Your task to perform on an android device: Open ESPN.com Image 0: 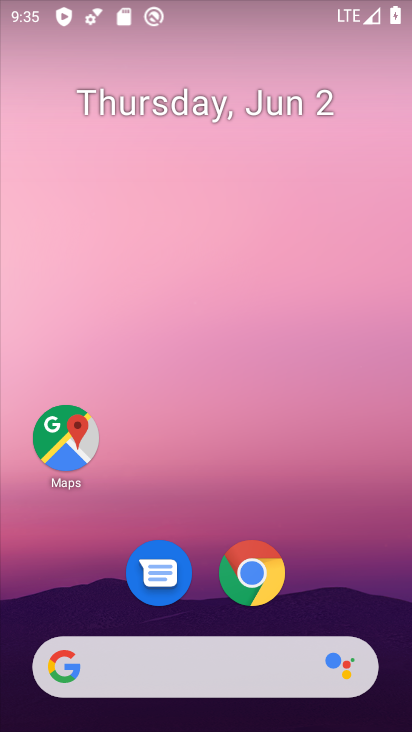
Step 0: click (252, 570)
Your task to perform on an android device: Open ESPN.com Image 1: 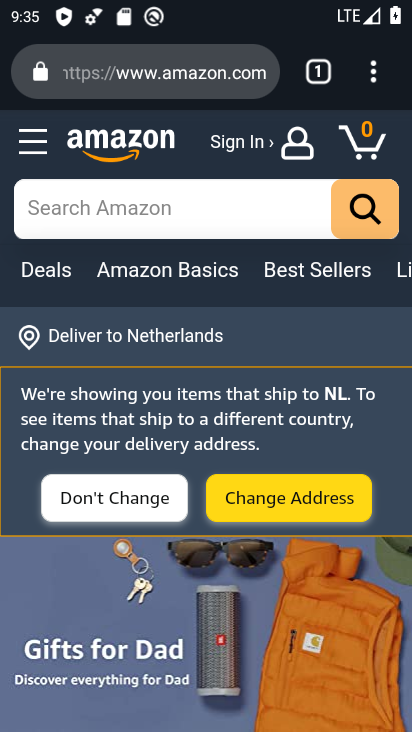
Step 1: click (230, 63)
Your task to perform on an android device: Open ESPN.com Image 2: 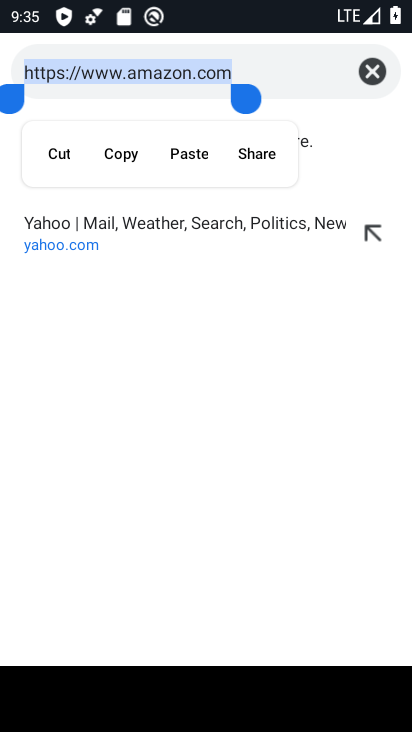
Step 2: type "espn.com"
Your task to perform on an android device: Open ESPN.com Image 3: 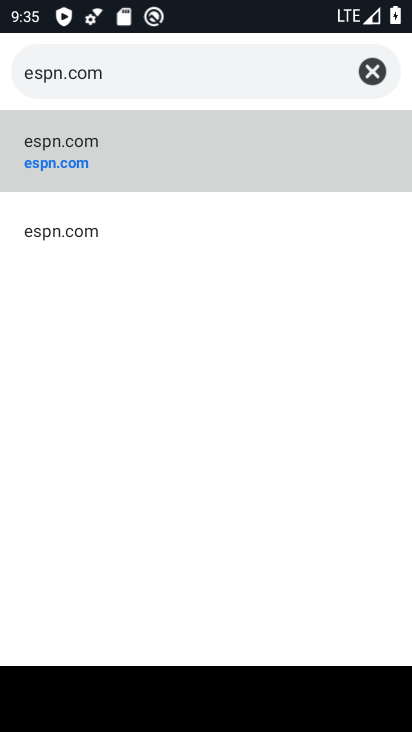
Step 3: click (42, 168)
Your task to perform on an android device: Open ESPN.com Image 4: 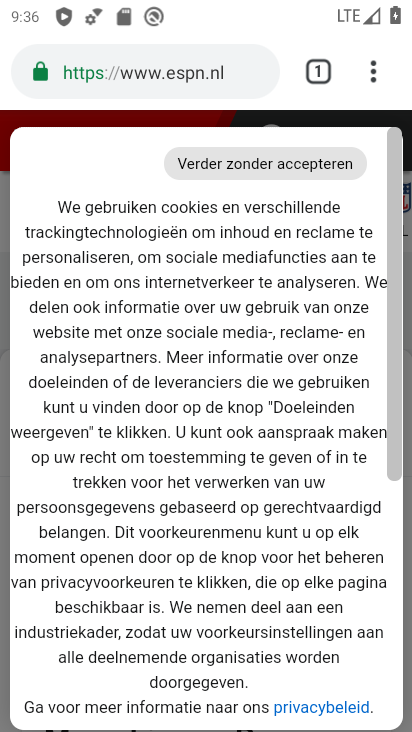
Step 4: task complete